Your task to perform on an android device: Clear all items from cart on ebay.com. Add "usb-c to usb-b" to the cart on ebay.com, then select checkout. Image 0: 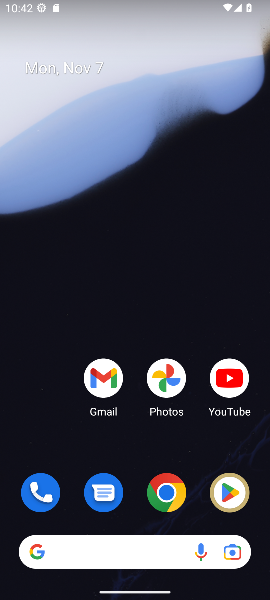
Step 0: drag from (135, 460) to (124, 95)
Your task to perform on an android device: Clear all items from cart on ebay.com. Add "usb-c to usb-b" to the cart on ebay.com, then select checkout. Image 1: 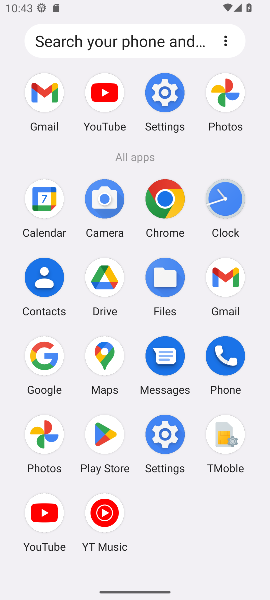
Step 1: click (162, 200)
Your task to perform on an android device: Clear all items from cart on ebay.com. Add "usb-c to usb-b" to the cart on ebay.com, then select checkout. Image 2: 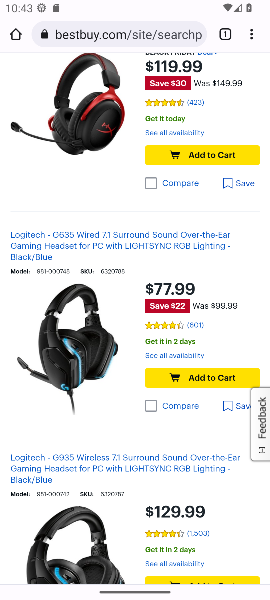
Step 2: click (111, 33)
Your task to perform on an android device: Clear all items from cart on ebay.com. Add "usb-c to usb-b" to the cart on ebay.com, then select checkout. Image 3: 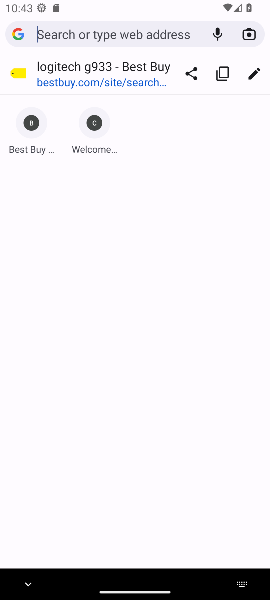
Step 3: type "ebay.com"
Your task to perform on an android device: Clear all items from cart on ebay.com. Add "usb-c to usb-b" to the cart on ebay.com, then select checkout. Image 4: 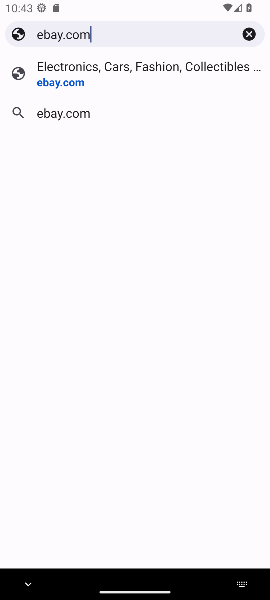
Step 4: press enter
Your task to perform on an android device: Clear all items from cart on ebay.com. Add "usb-c to usb-b" to the cart on ebay.com, then select checkout. Image 5: 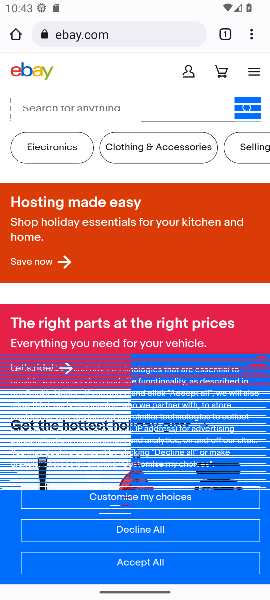
Step 5: click (229, 77)
Your task to perform on an android device: Clear all items from cart on ebay.com. Add "usb-c to usb-b" to the cart on ebay.com, then select checkout. Image 6: 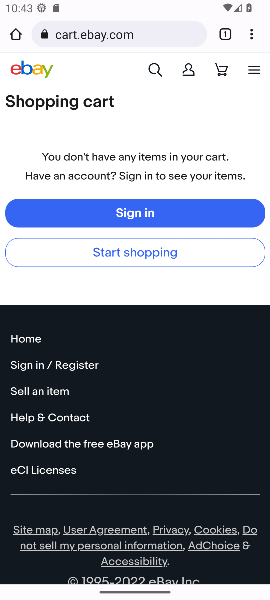
Step 6: click (156, 72)
Your task to perform on an android device: Clear all items from cart on ebay.com. Add "usb-c to usb-b" to the cart on ebay.com, then select checkout. Image 7: 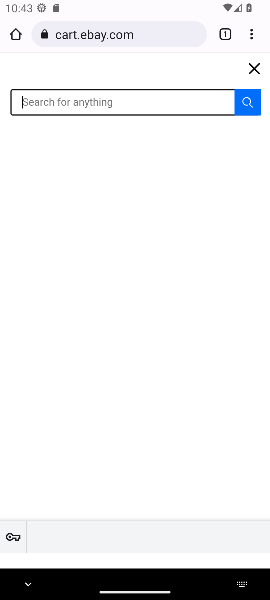
Step 7: type "usb-c to usb-b"
Your task to perform on an android device: Clear all items from cart on ebay.com. Add "usb-c to usb-b" to the cart on ebay.com, then select checkout. Image 8: 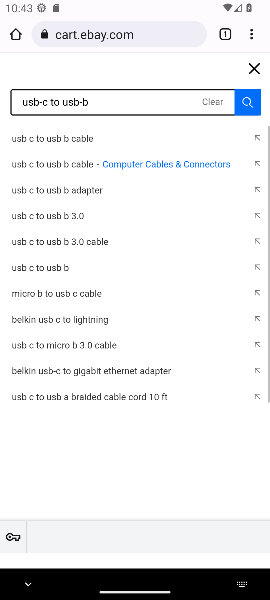
Step 8: press enter
Your task to perform on an android device: Clear all items from cart on ebay.com. Add "usb-c to usb-b" to the cart on ebay.com, then select checkout. Image 9: 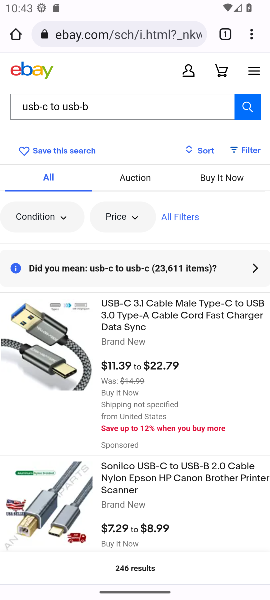
Step 9: drag from (179, 397) to (183, 192)
Your task to perform on an android device: Clear all items from cart on ebay.com. Add "usb-c to usb-b" to the cart on ebay.com, then select checkout. Image 10: 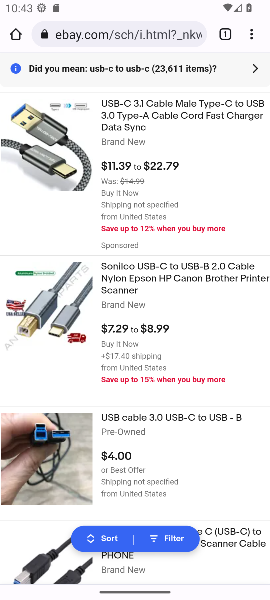
Step 10: click (205, 378)
Your task to perform on an android device: Clear all items from cart on ebay.com. Add "usb-c to usb-b" to the cart on ebay.com, then select checkout. Image 11: 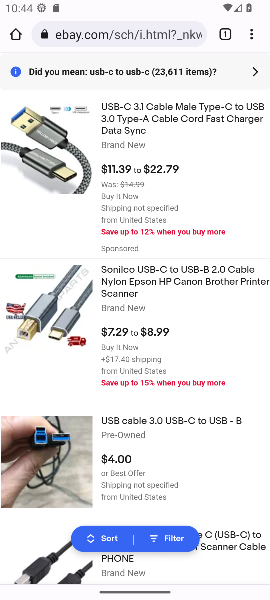
Step 11: click (76, 320)
Your task to perform on an android device: Clear all items from cart on ebay.com. Add "usb-c to usb-b" to the cart on ebay.com, then select checkout. Image 12: 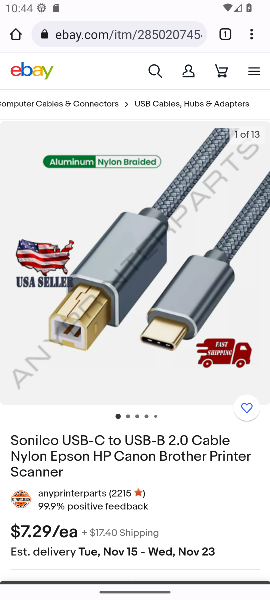
Step 12: drag from (146, 479) to (167, 132)
Your task to perform on an android device: Clear all items from cart on ebay.com. Add "usb-c to usb-b" to the cart on ebay.com, then select checkout. Image 13: 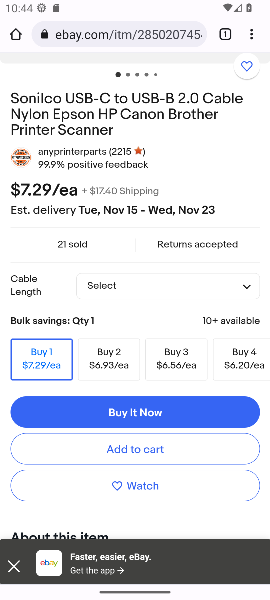
Step 13: click (178, 447)
Your task to perform on an android device: Clear all items from cart on ebay.com. Add "usb-c to usb-b" to the cart on ebay.com, then select checkout. Image 14: 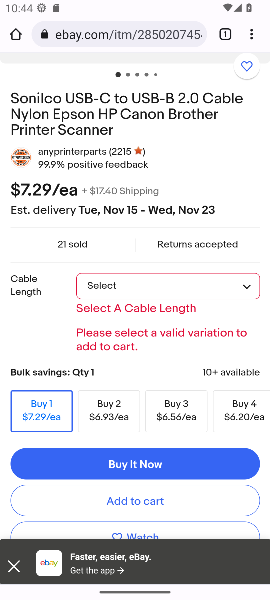
Step 14: click (129, 282)
Your task to perform on an android device: Clear all items from cart on ebay.com. Add "usb-c to usb-b" to the cart on ebay.com, then select checkout. Image 15: 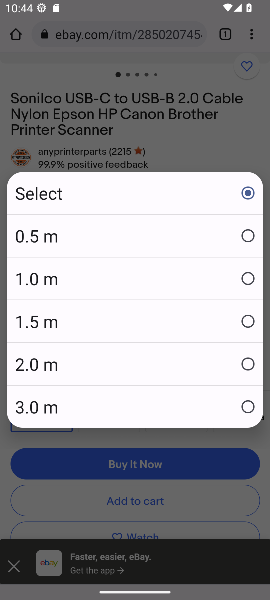
Step 15: click (103, 232)
Your task to perform on an android device: Clear all items from cart on ebay.com. Add "usb-c to usb-b" to the cart on ebay.com, then select checkout. Image 16: 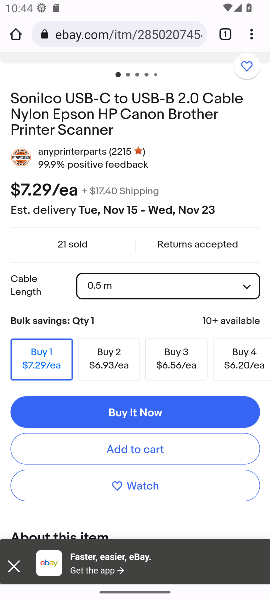
Step 16: click (158, 445)
Your task to perform on an android device: Clear all items from cart on ebay.com. Add "usb-c to usb-b" to the cart on ebay.com, then select checkout. Image 17: 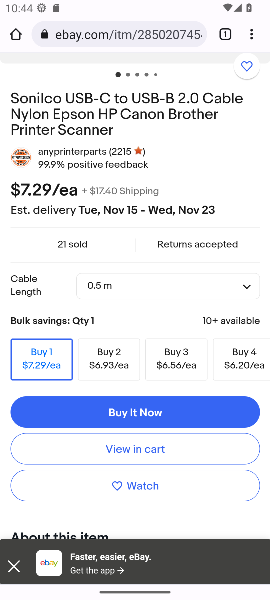
Step 17: click (158, 446)
Your task to perform on an android device: Clear all items from cart on ebay.com. Add "usb-c to usb-b" to the cart on ebay.com, then select checkout. Image 18: 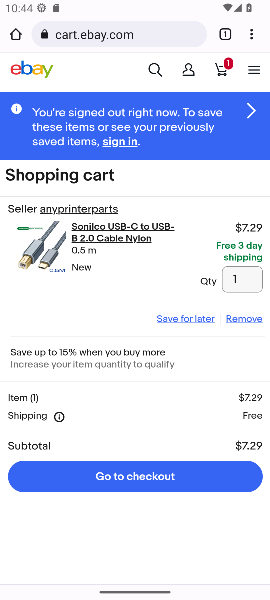
Step 18: click (169, 467)
Your task to perform on an android device: Clear all items from cart on ebay.com. Add "usb-c to usb-b" to the cart on ebay.com, then select checkout. Image 19: 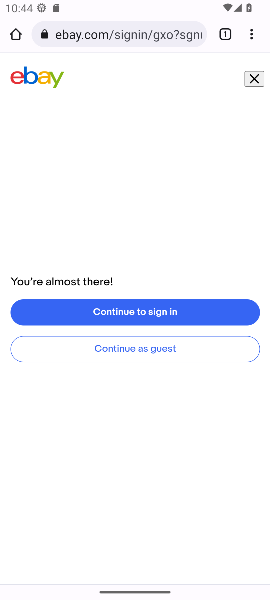
Step 19: task complete